Your task to perform on an android device: Open Reddit.com Image 0: 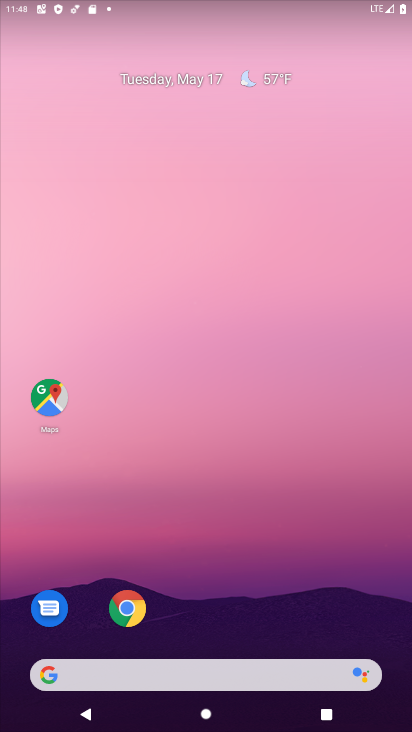
Step 0: click (133, 614)
Your task to perform on an android device: Open Reddit.com Image 1: 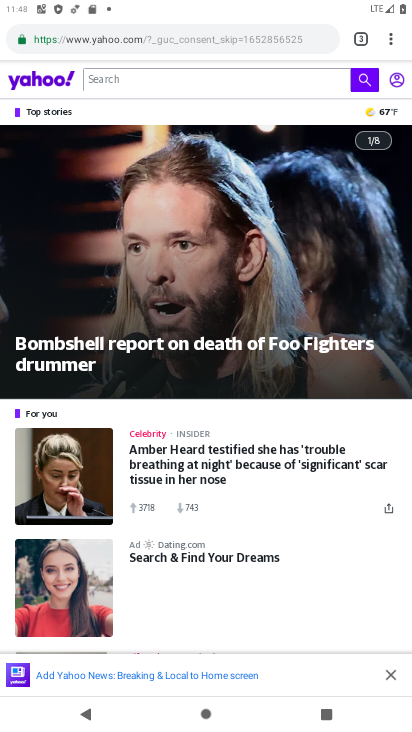
Step 1: click (391, 38)
Your task to perform on an android device: Open Reddit.com Image 2: 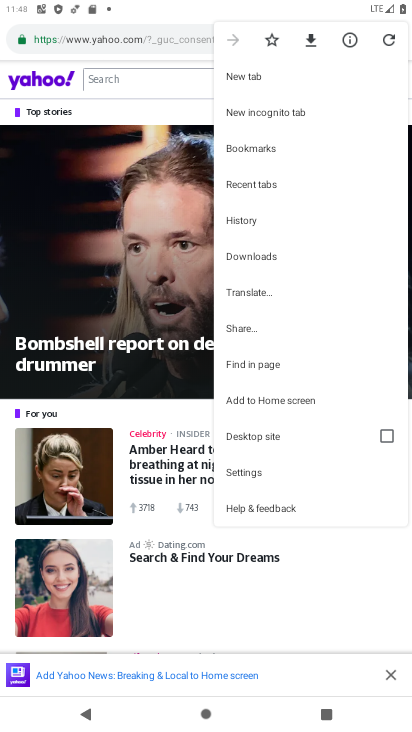
Step 2: click (246, 78)
Your task to perform on an android device: Open Reddit.com Image 3: 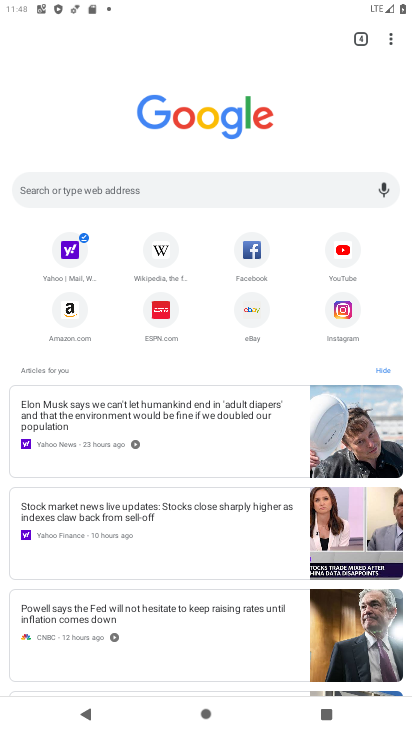
Step 3: click (124, 186)
Your task to perform on an android device: Open Reddit.com Image 4: 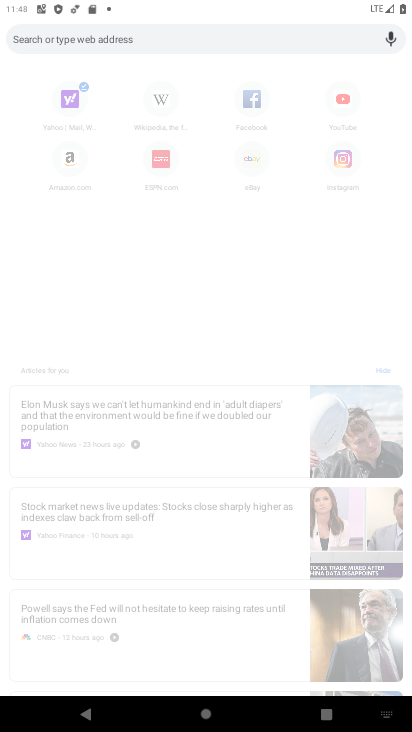
Step 4: type "reddit.com"
Your task to perform on an android device: Open Reddit.com Image 5: 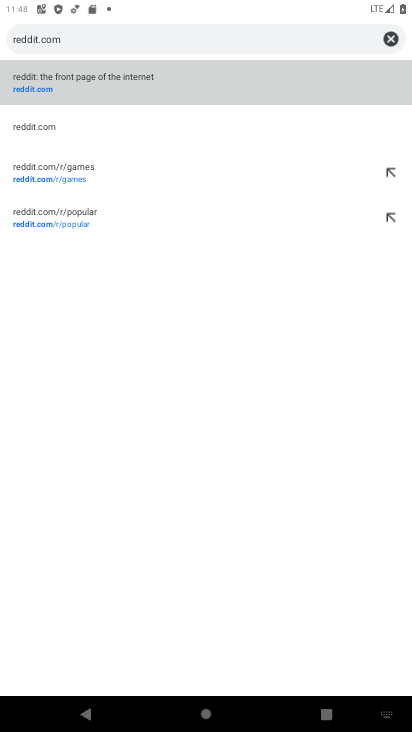
Step 5: click (38, 125)
Your task to perform on an android device: Open Reddit.com Image 6: 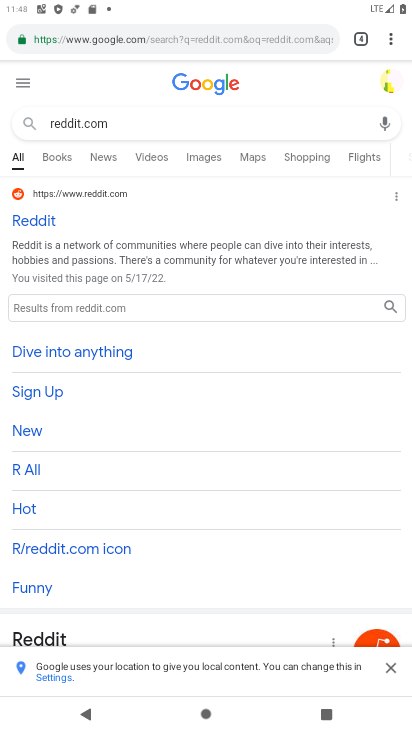
Step 6: task complete